Your task to perform on an android device: open a bookmark in the chrome app Image 0: 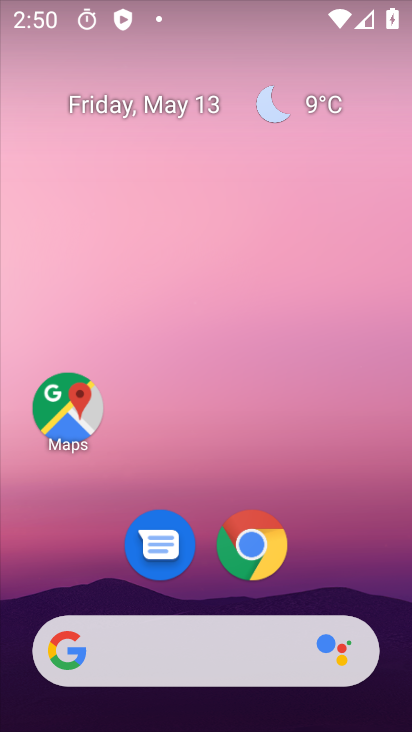
Step 0: click (254, 537)
Your task to perform on an android device: open a bookmark in the chrome app Image 1: 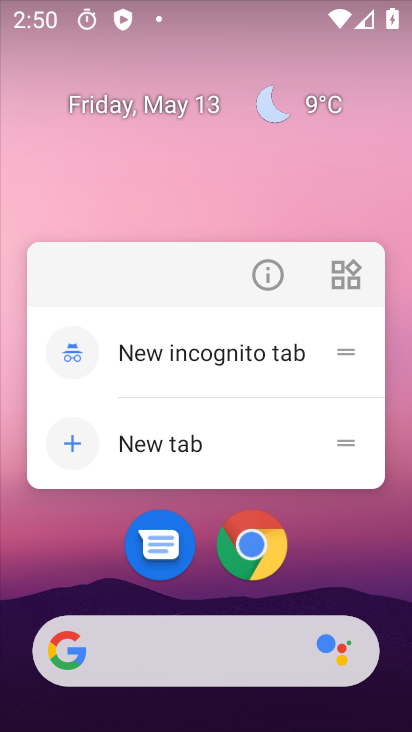
Step 1: click (247, 539)
Your task to perform on an android device: open a bookmark in the chrome app Image 2: 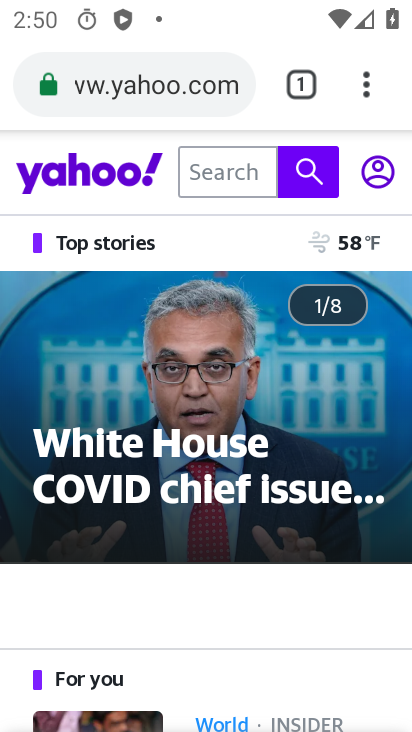
Step 2: task complete